Your task to perform on an android device: delete the emails in spam in the gmail app Image 0: 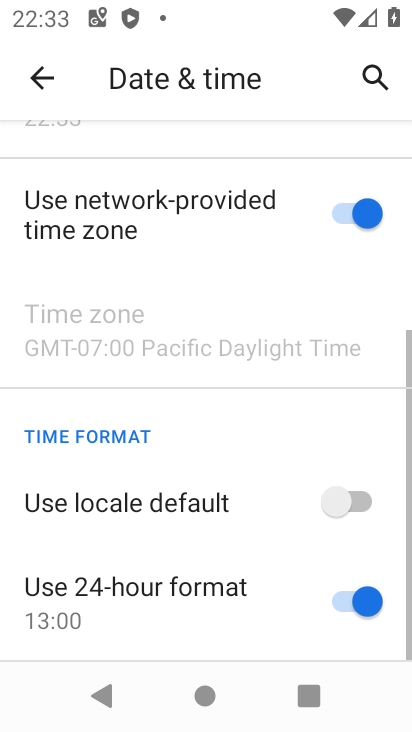
Step 0: press home button
Your task to perform on an android device: delete the emails in spam in the gmail app Image 1: 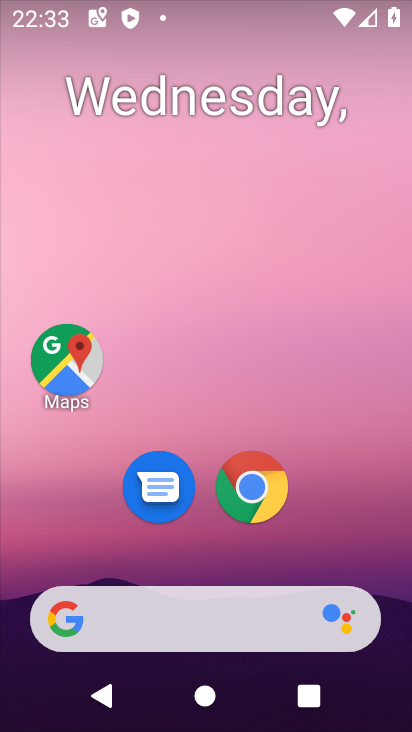
Step 1: drag from (245, 687) to (220, 2)
Your task to perform on an android device: delete the emails in spam in the gmail app Image 2: 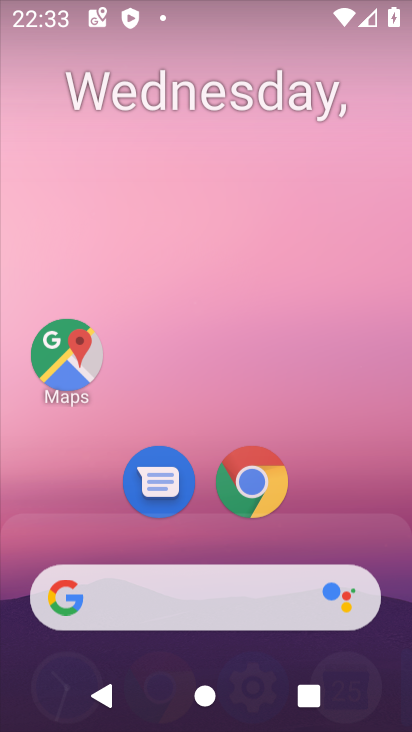
Step 2: drag from (217, 429) to (394, 45)
Your task to perform on an android device: delete the emails in spam in the gmail app Image 3: 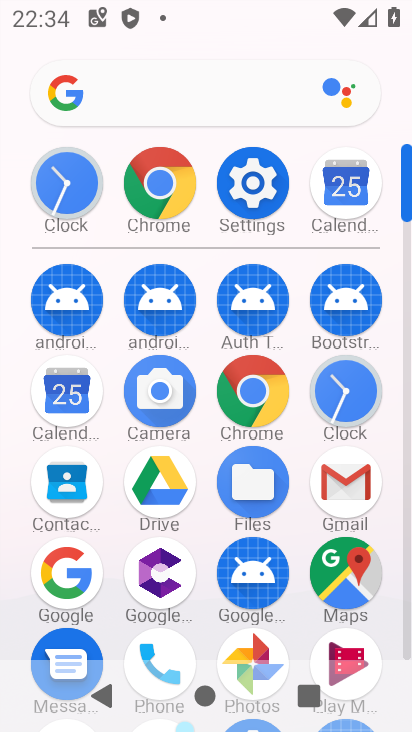
Step 3: drag from (241, 301) to (362, 386)
Your task to perform on an android device: delete the emails in spam in the gmail app Image 4: 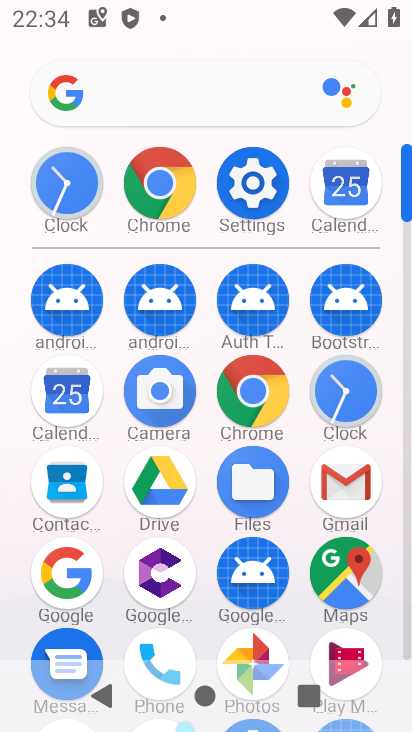
Step 4: click (359, 470)
Your task to perform on an android device: delete the emails in spam in the gmail app Image 5: 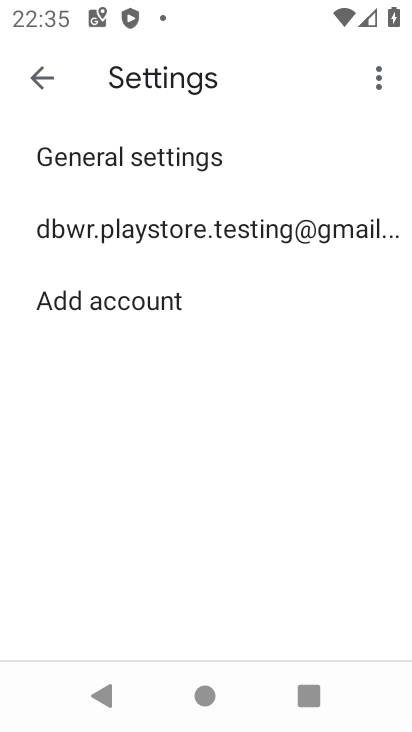
Step 5: click (51, 78)
Your task to perform on an android device: delete the emails in spam in the gmail app Image 6: 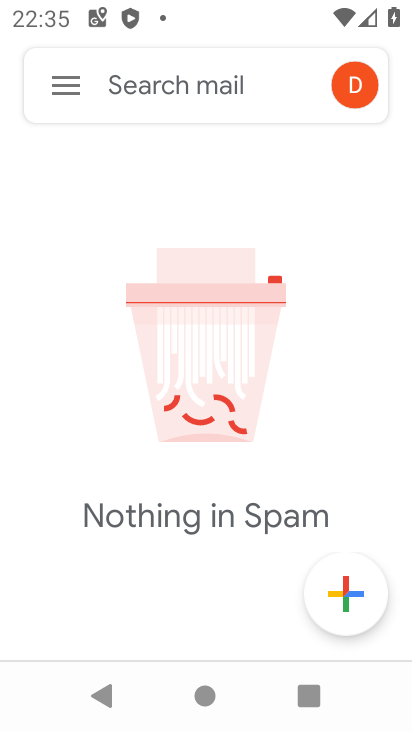
Step 6: task complete